Your task to perform on an android device: change keyboard looks Image 0: 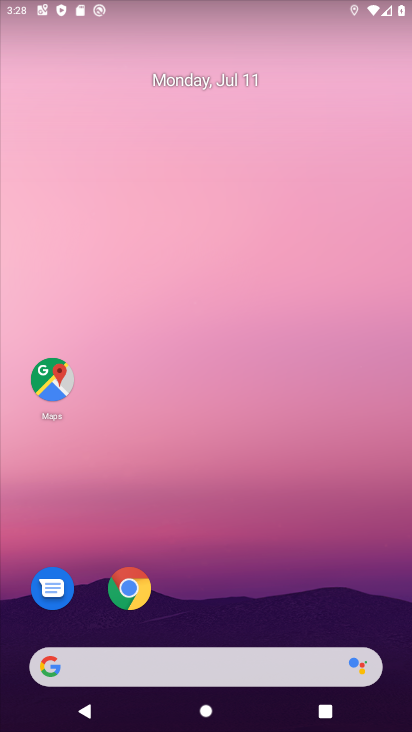
Step 0: drag from (242, 654) to (260, 138)
Your task to perform on an android device: change keyboard looks Image 1: 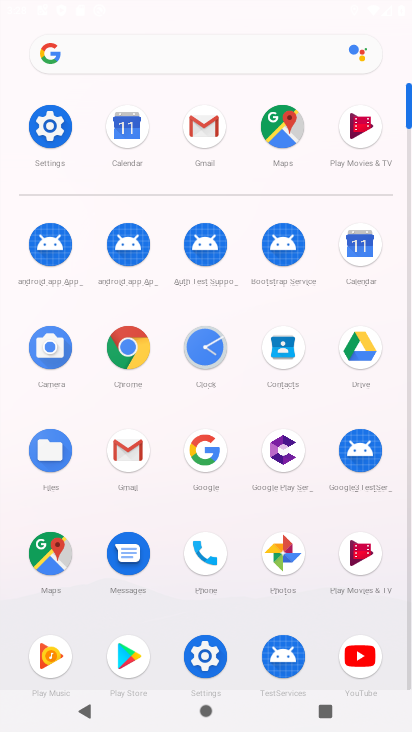
Step 1: click (191, 648)
Your task to perform on an android device: change keyboard looks Image 2: 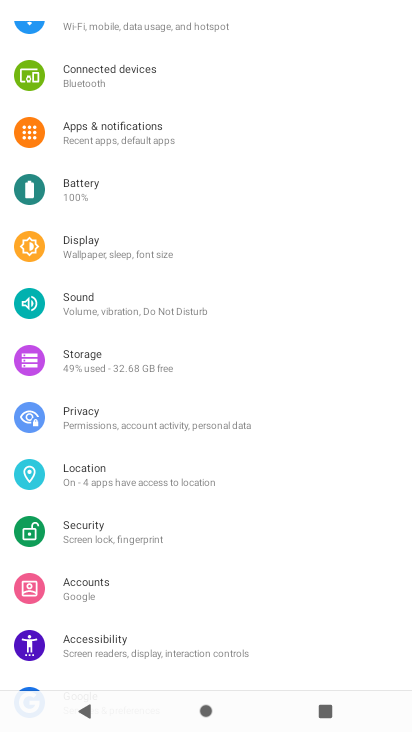
Step 2: drag from (115, 644) to (107, 281)
Your task to perform on an android device: change keyboard looks Image 3: 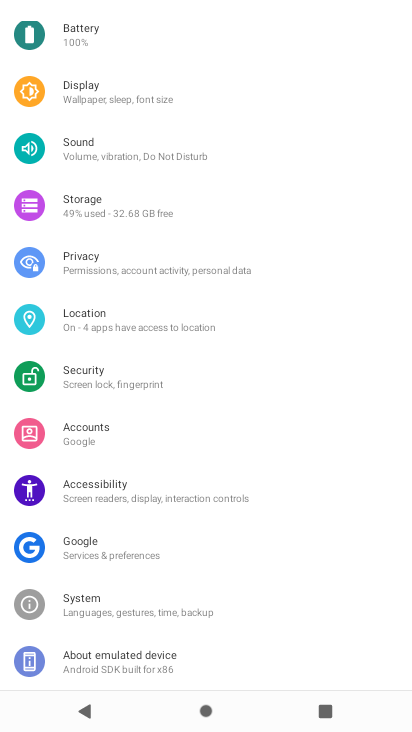
Step 3: click (103, 616)
Your task to perform on an android device: change keyboard looks Image 4: 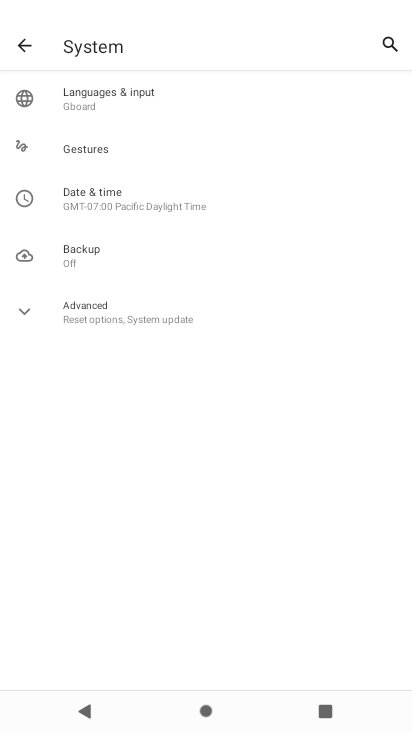
Step 4: click (83, 104)
Your task to perform on an android device: change keyboard looks Image 5: 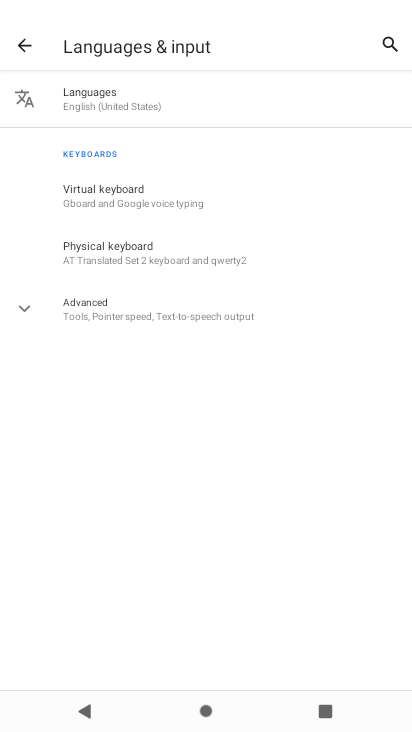
Step 5: click (72, 196)
Your task to perform on an android device: change keyboard looks Image 6: 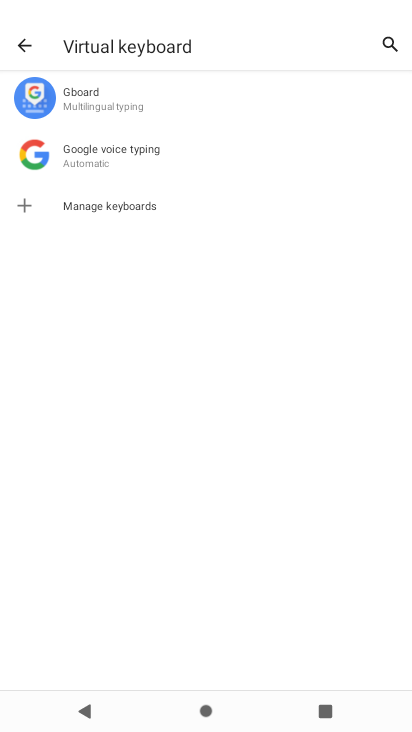
Step 6: click (19, 42)
Your task to perform on an android device: change keyboard looks Image 7: 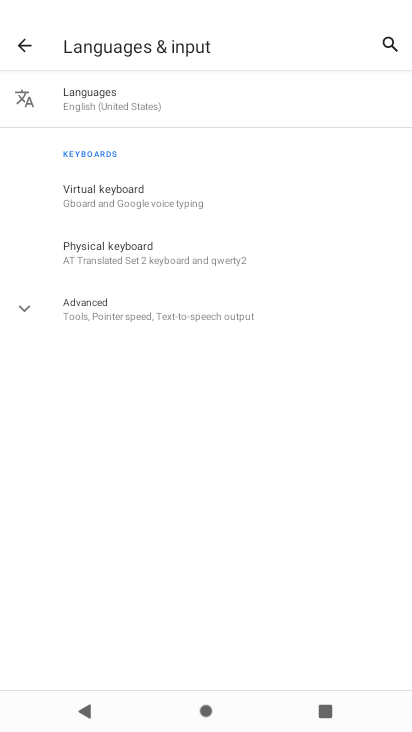
Step 7: click (93, 200)
Your task to perform on an android device: change keyboard looks Image 8: 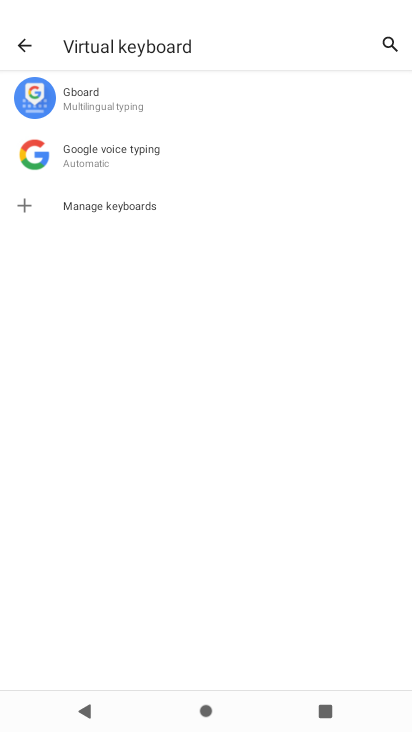
Step 8: click (88, 100)
Your task to perform on an android device: change keyboard looks Image 9: 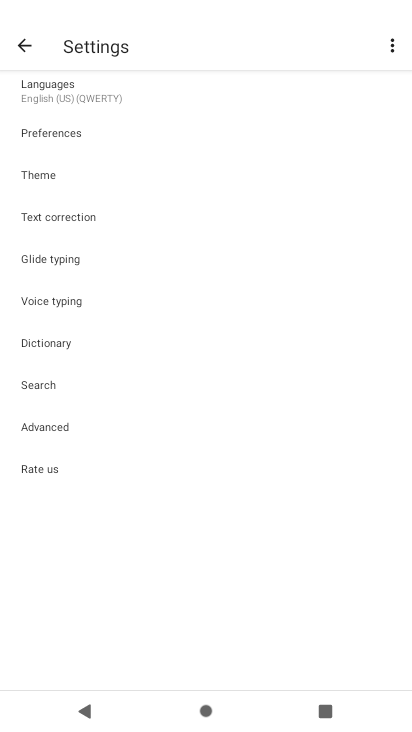
Step 9: click (57, 176)
Your task to perform on an android device: change keyboard looks Image 10: 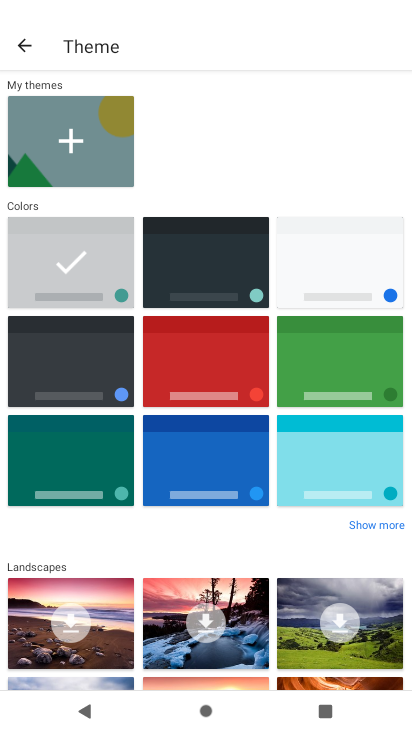
Step 10: click (205, 643)
Your task to perform on an android device: change keyboard looks Image 11: 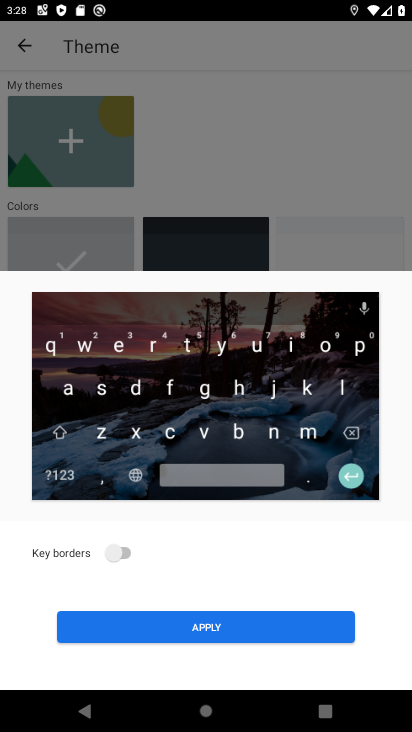
Step 11: click (200, 627)
Your task to perform on an android device: change keyboard looks Image 12: 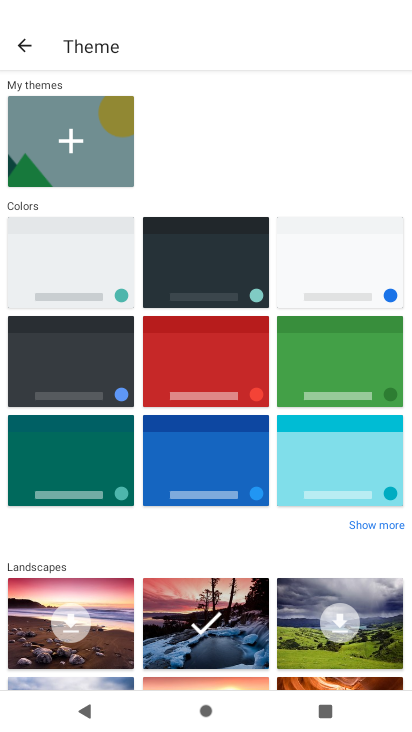
Step 12: task complete